Your task to perform on an android device: turn on notifications settings in the gmail app Image 0: 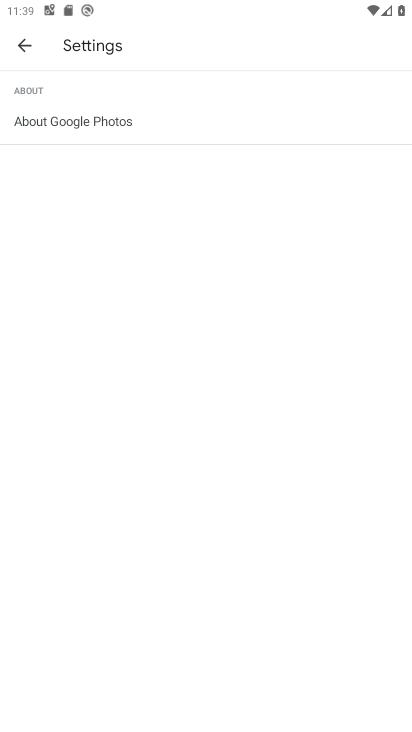
Step 0: press home button
Your task to perform on an android device: turn on notifications settings in the gmail app Image 1: 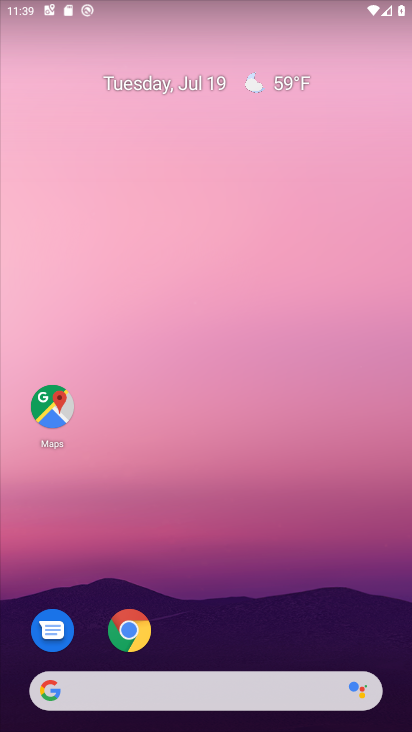
Step 1: drag from (391, 654) to (375, 112)
Your task to perform on an android device: turn on notifications settings in the gmail app Image 2: 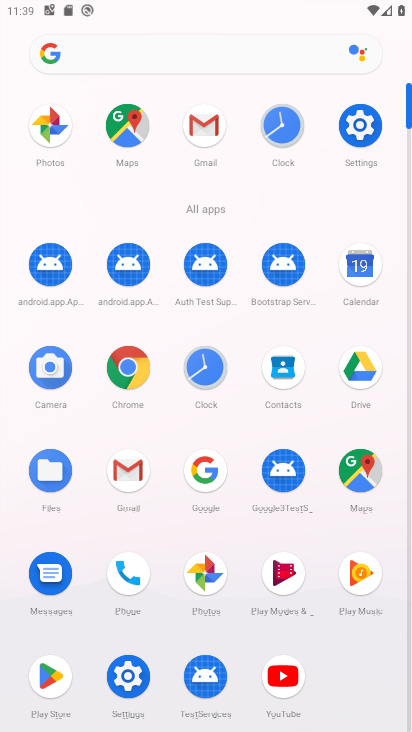
Step 2: click (126, 471)
Your task to perform on an android device: turn on notifications settings in the gmail app Image 3: 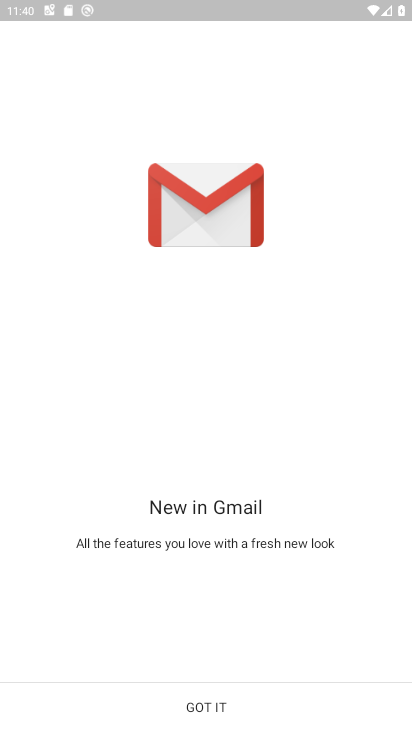
Step 3: click (212, 704)
Your task to perform on an android device: turn on notifications settings in the gmail app Image 4: 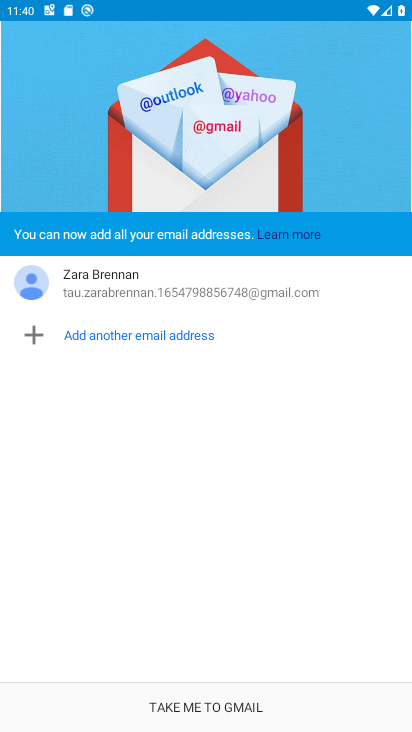
Step 4: click (212, 704)
Your task to perform on an android device: turn on notifications settings in the gmail app Image 5: 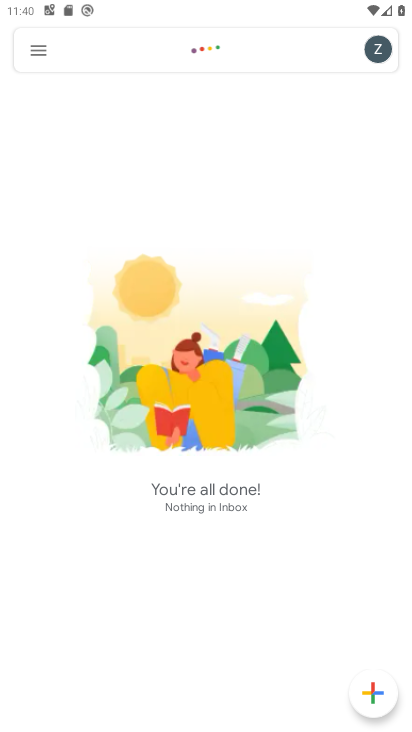
Step 5: click (38, 50)
Your task to perform on an android device: turn on notifications settings in the gmail app Image 6: 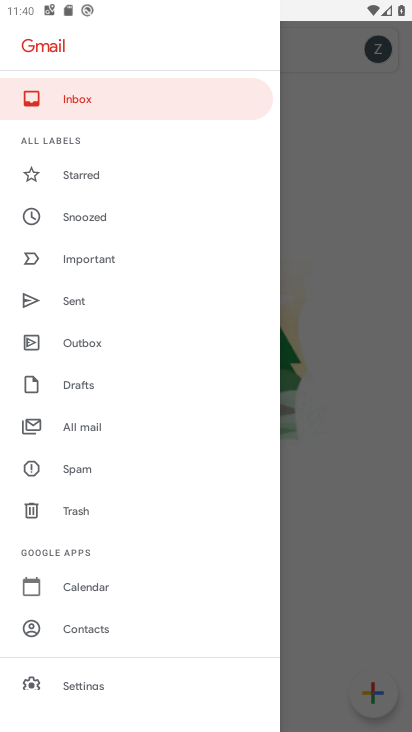
Step 6: drag from (137, 656) to (155, 347)
Your task to perform on an android device: turn on notifications settings in the gmail app Image 7: 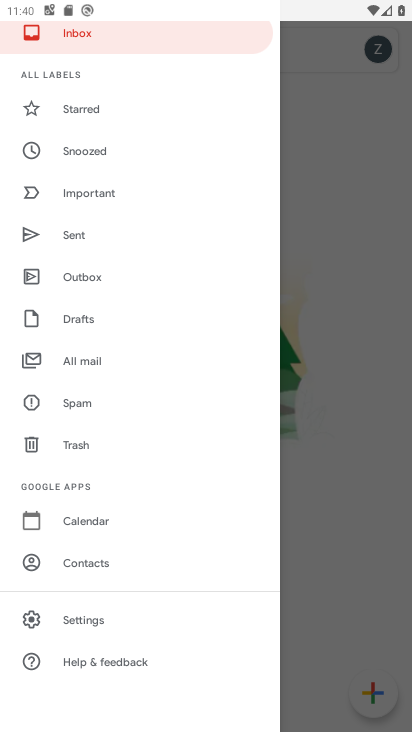
Step 7: click (87, 622)
Your task to perform on an android device: turn on notifications settings in the gmail app Image 8: 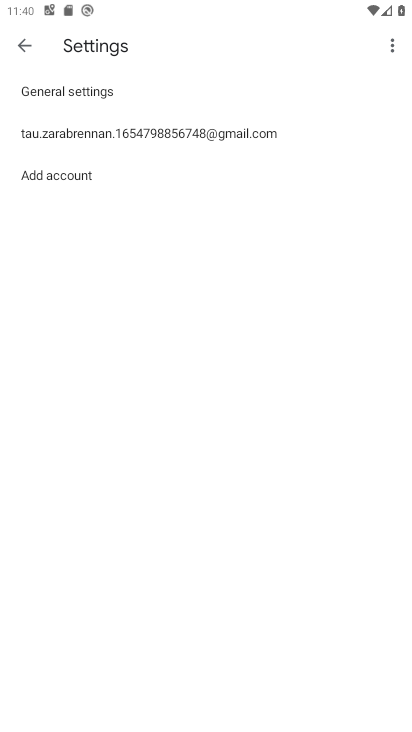
Step 8: click (95, 134)
Your task to perform on an android device: turn on notifications settings in the gmail app Image 9: 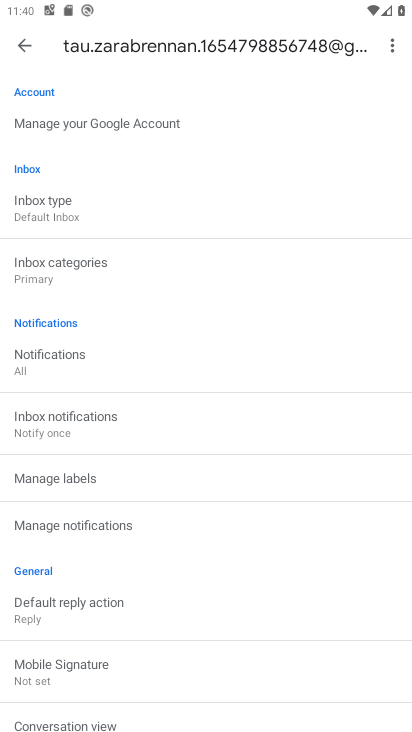
Step 9: click (95, 515)
Your task to perform on an android device: turn on notifications settings in the gmail app Image 10: 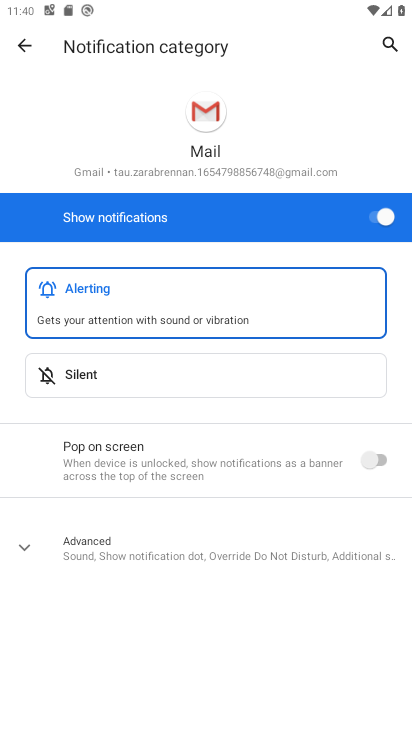
Step 10: task complete